Your task to perform on an android device: Go to sound settings Image 0: 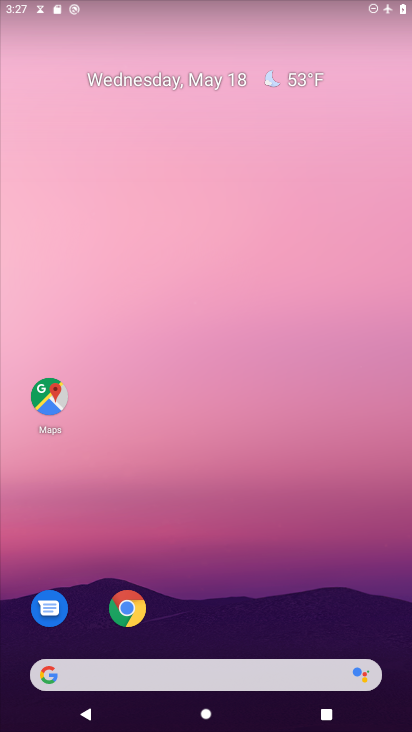
Step 0: drag from (178, 654) to (176, 252)
Your task to perform on an android device: Go to sound settings Image 1: 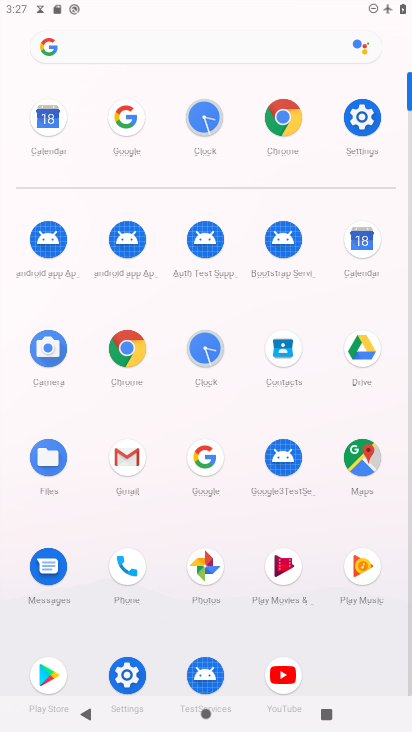
Step 1: click (355, 125)
Your task to perform on an android device: Go to sound settings Image 2: 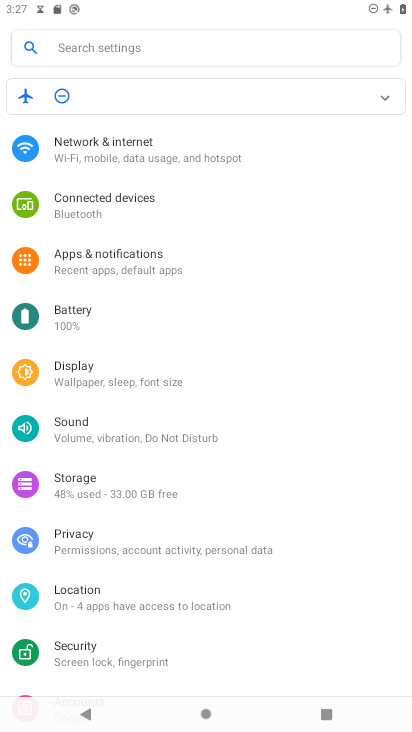
Step 2: click (74, 406)
Your task to perform on an android device: Go to sound settings Image 3: 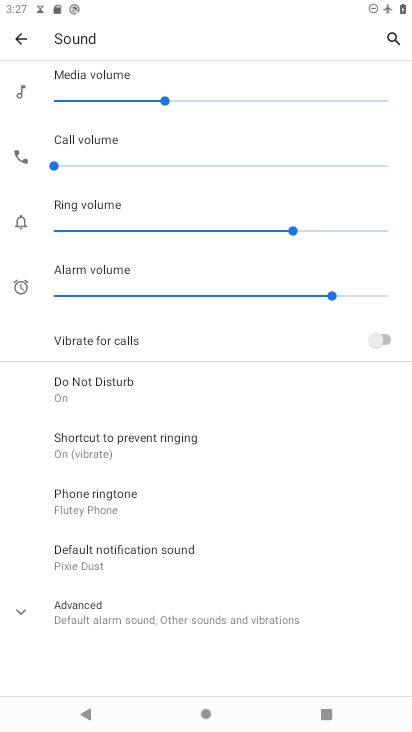
Step 3: click (125, 616)
Your task to perform on an android device: Go to sound settings Image 4: 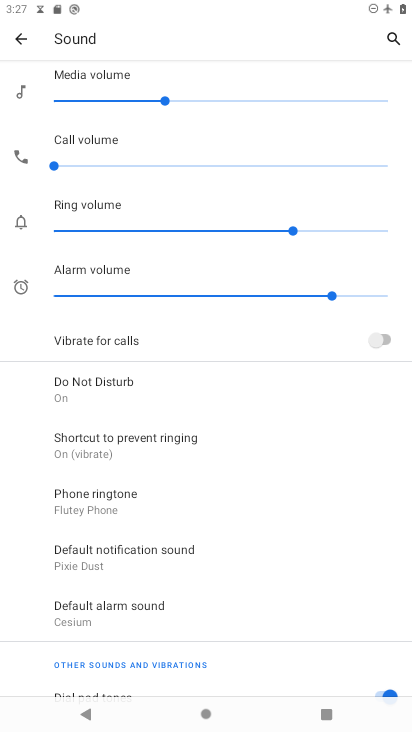
Step 4: task complete